Your task to perform on an android device: Search for seafood restaurants on Google Maps Image 0: 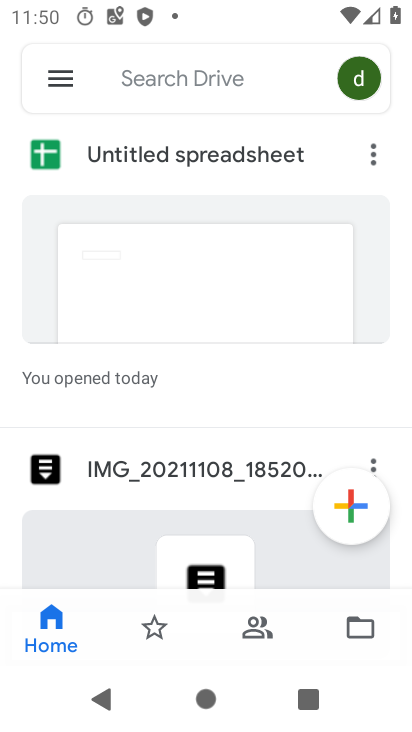
Step 0: press home button
Your task to perform on an android device: Search for seafood restaurants on Google Maps Image 1: 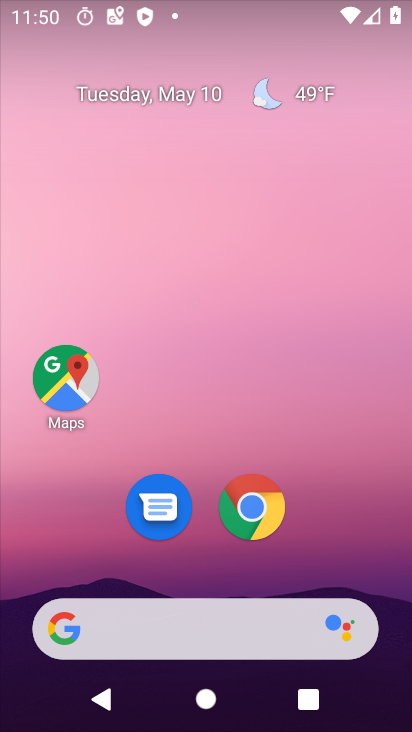
Step 1: click (73, 379)
Your task to perform on an android device: Search for seafood restaurants on Google Maps Image 2: 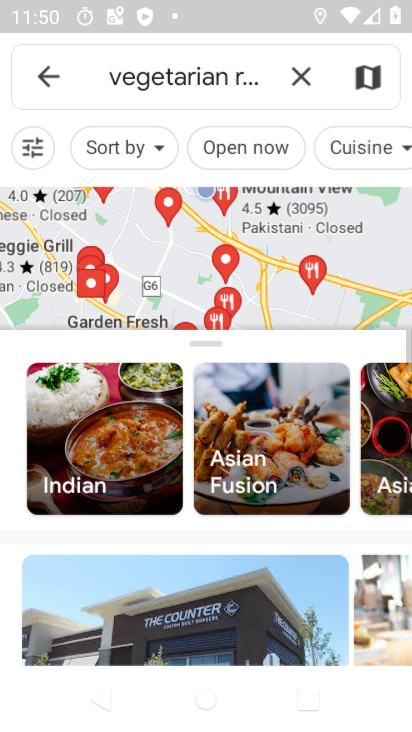
Step 2: click (302, 81)
Your task to perform on an android device: Search for seafood restaurants on Google Maps Image 3: 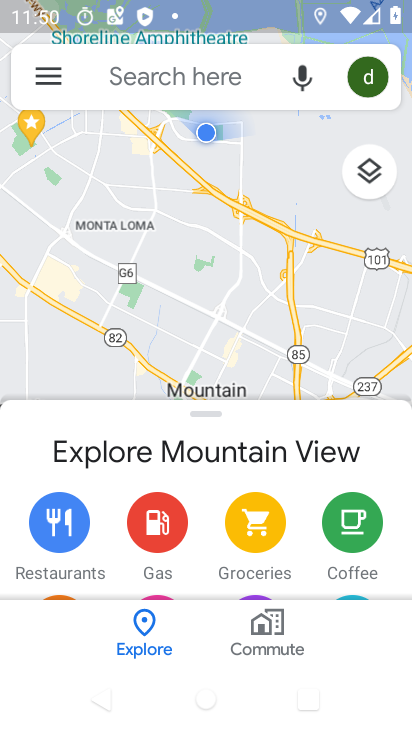
Step 3: click (184, 93)
Your task to perform on an android device: Search for seafood restaurants on Google Maps Image 4: 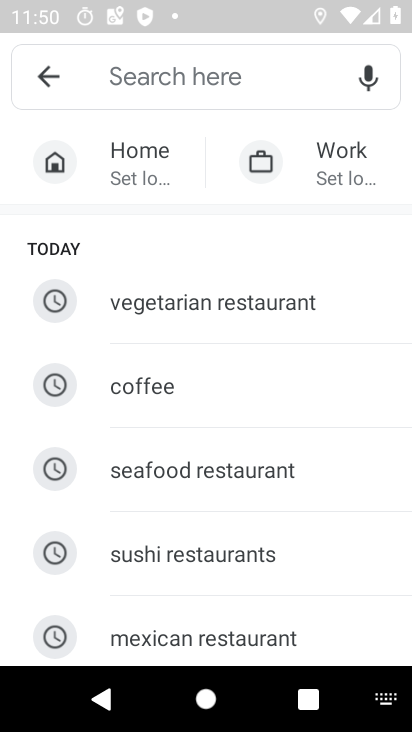
Step 4: click (163, 472)
Your task to perform on an android device: Search for seafood restaurants on Google Maps Image 5: 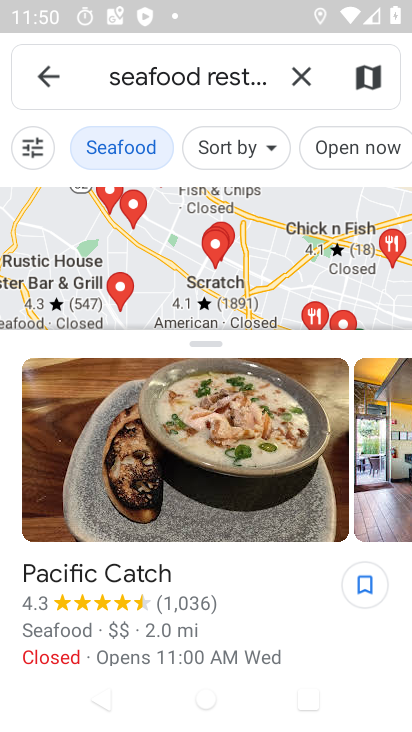
Step 5: task complete